Your task to perform on an android device: turn off location history Image 0: 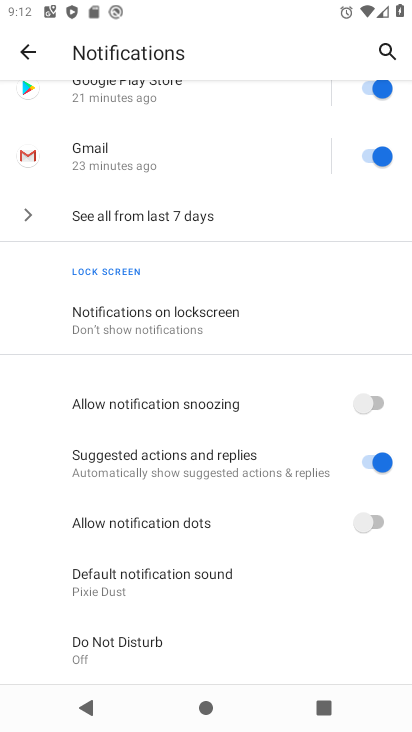
Step 0: press home button
Your task to perform on an android device: turn off location history Image 1: 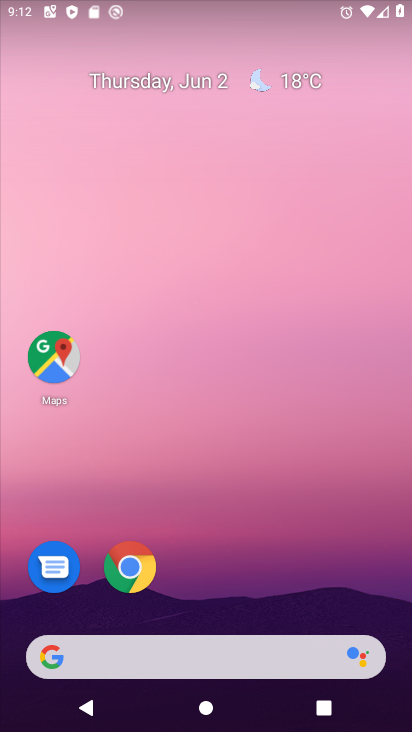
Step 1: drag from (203, 500) to (234, 127)
Your task to perform on an android device: turn off location history Image 2: 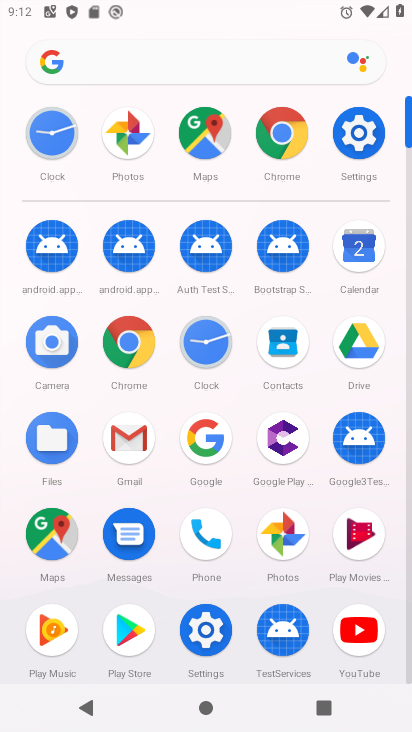
Step 2: drag from (233, 485) to (242, 128)
Your task to perform on an android device: turn off location history Image 3: 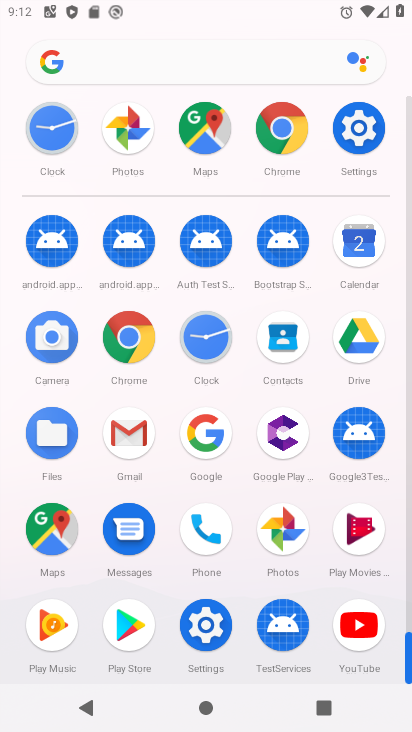
Step 3: click (362, 128)
Your task to perform on an android device: turn off location history Image 4: 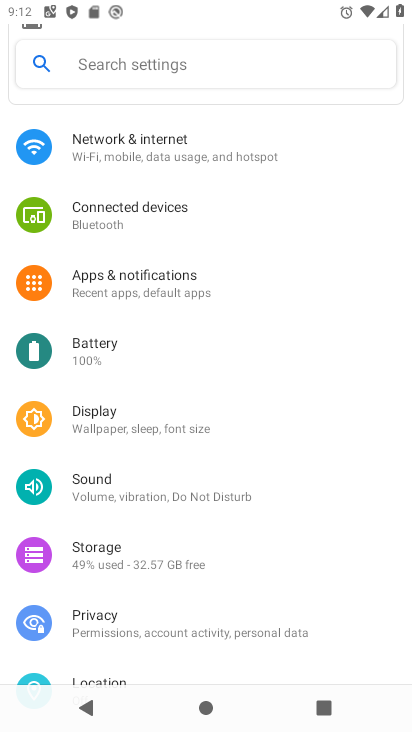
Step 4: drag from (107, 657) to (161, 396)
Your task to perform on an android device: turn off location history Image 5: 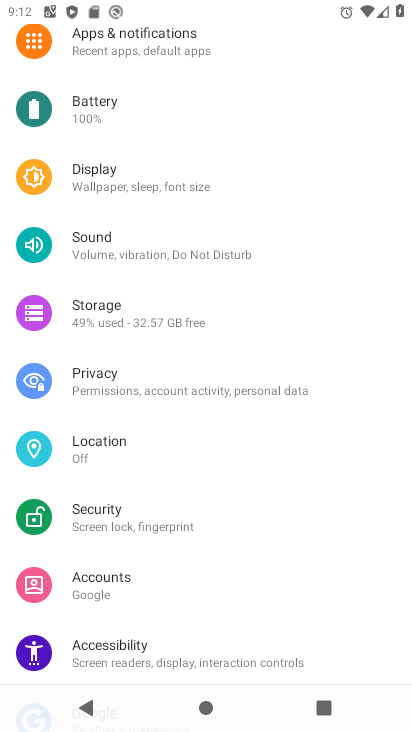
Step 5: click (137, 485)
Your task to perform on an android device: turn off location history Image 6: 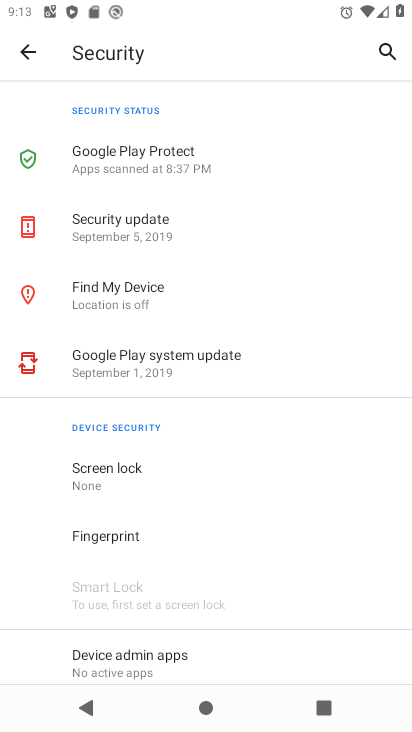
Step 6: click (27, 57)
Your task to perform on an android device: turn off location history Image 7: 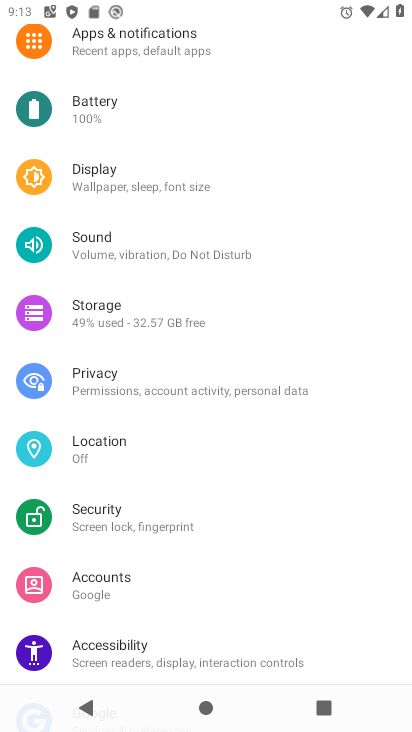
Step 7: click (130, 442)
Your task to perform on an android device: turn off location history Image 8: 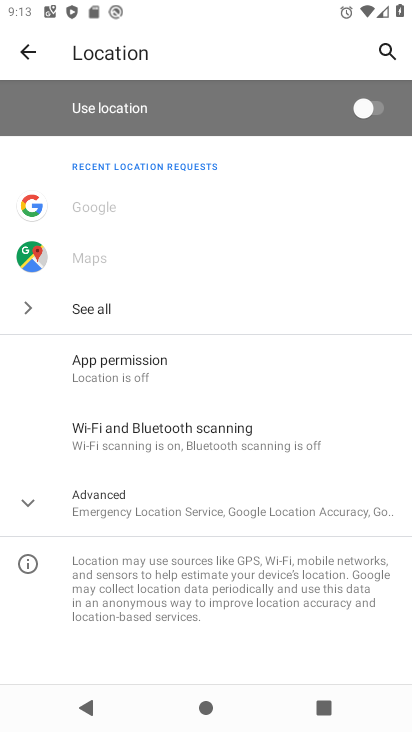
Step 8: click (166, 512)
Your task to perform on an android device: turn off location history Image 9: 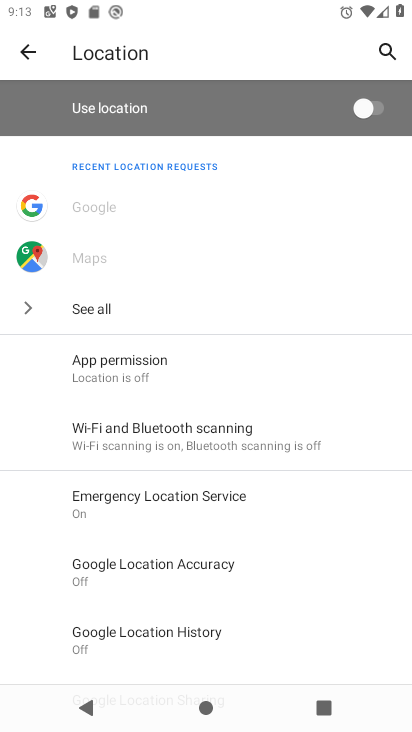
Step 9: click (151, 644)
Your task to perform on an android device: turn off location history Image 10: 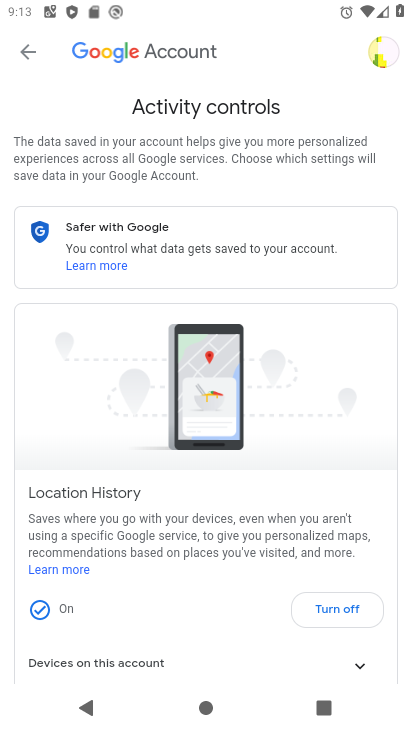
Step 10: click (318, 610)
Your task to perform on an android device: turn off location history Image 11: 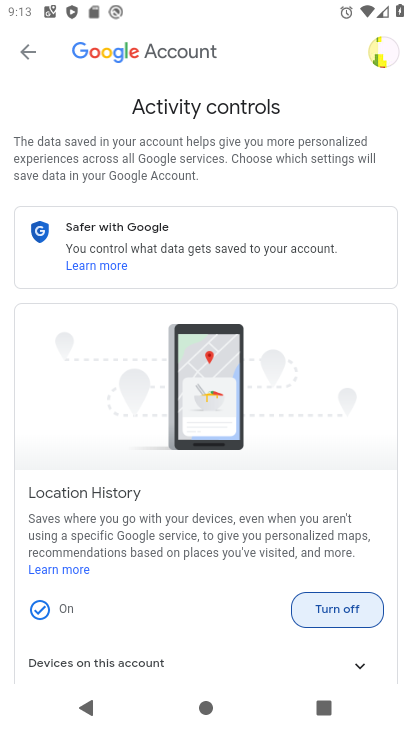
Step 11: drag from (213, 597) to (204, 417)
Your task to perform on an android device: turn off location history Image 12: 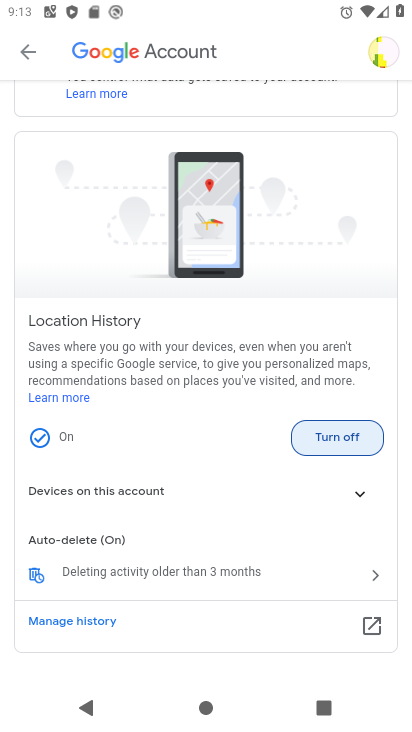
Step 12: click (320, 434)
Your task to perform on an android device: turn off location history Image 13: 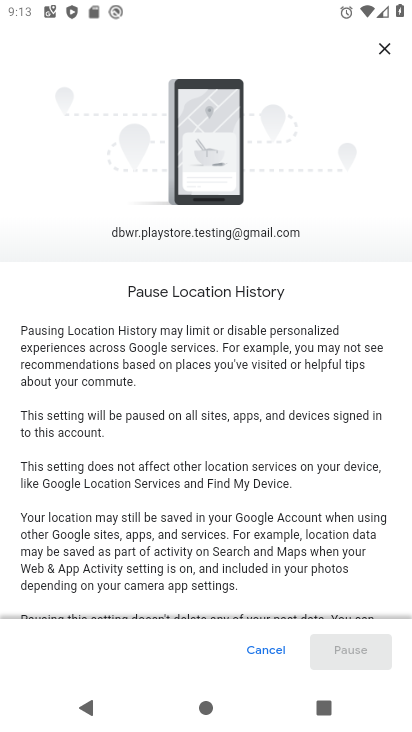
Step 13: drag from (263, 512) to (332, 20)
Your task to perform on an android device: turn off location history Image 14: 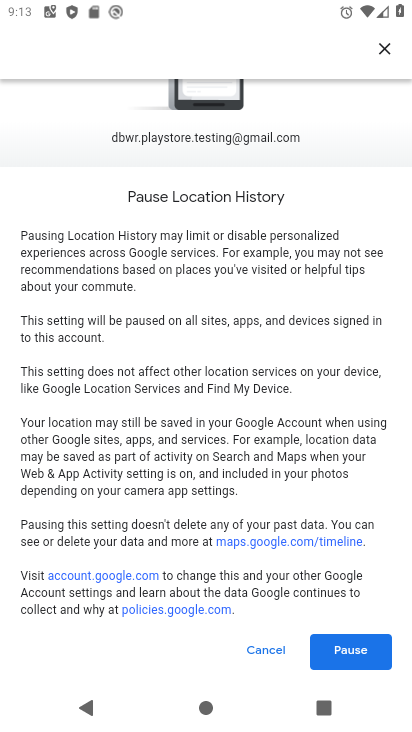
Step 14: click (345, 653)
Your task to perform on an android device: turn off location history Image 15: 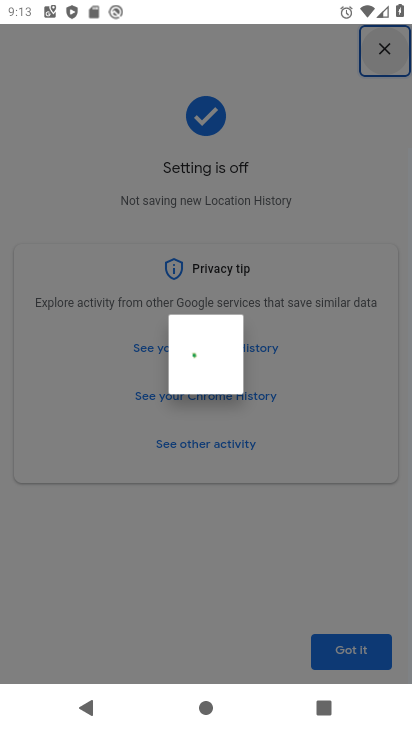
Step 15: click (344, 654)
Your task to perform on an android device: turn off location history Image 16: 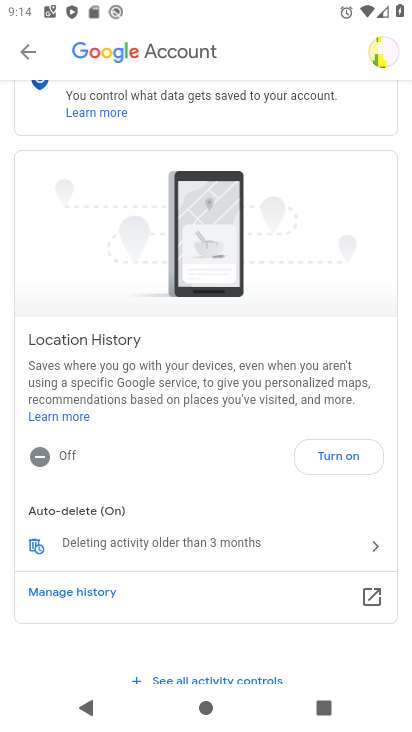
Step 16: task complete